Your task to perform on an android device: Search for sushi restaurants on Maps Image 0: 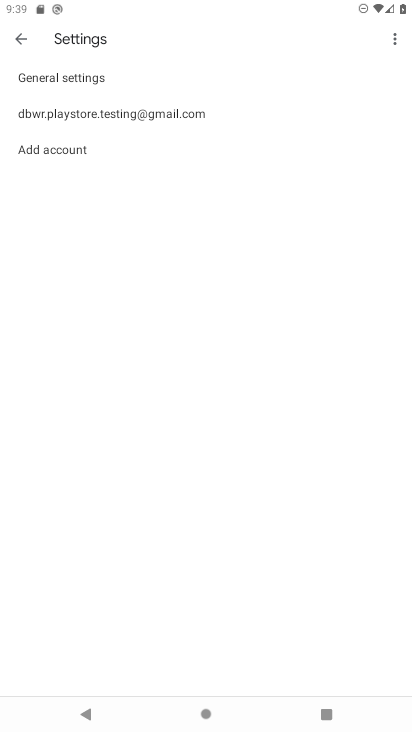
Step 0: press home button
Your task to perform on an android device: Search for sushi restaurants on Maps Image 1: 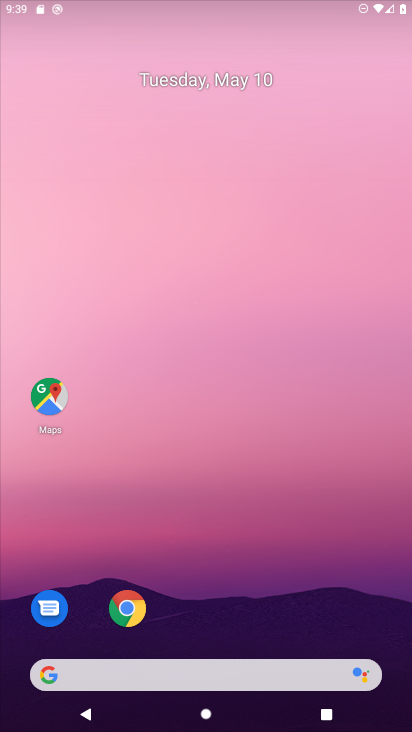
Step 1: drag from (385, 643) to (306, 112)
Your task to perform on an android device: Search for sushi restaurants on Maps Image 2: 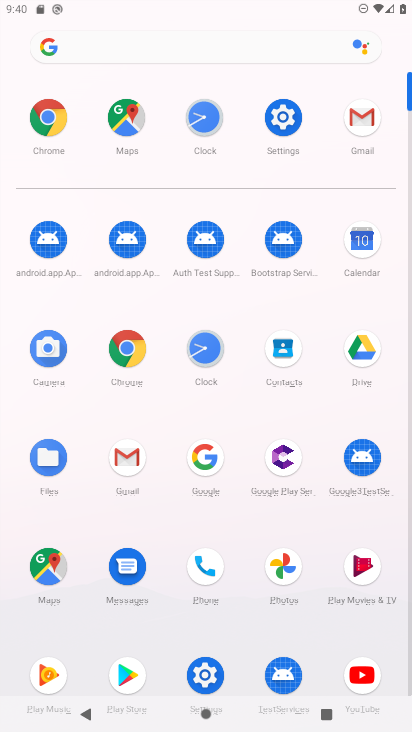
Step 2: click (36, 575)
Your task to perform on an android device: Search for sushi restaurants on Maps Image 3: 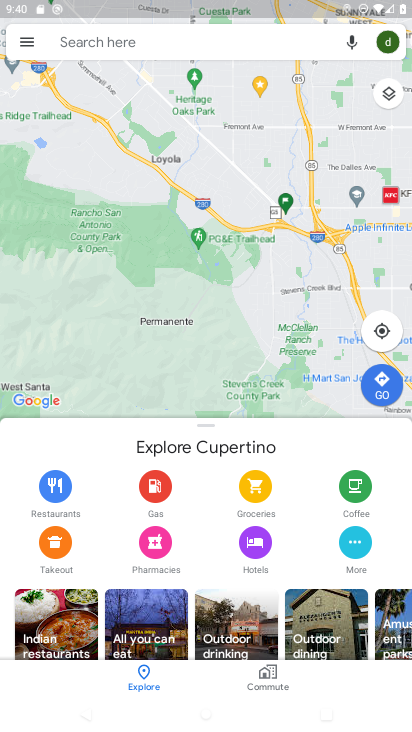
Step 3: click (169, 42)
Your task to perform on an android device: Search for sushi restaurants on Maps Image 4: 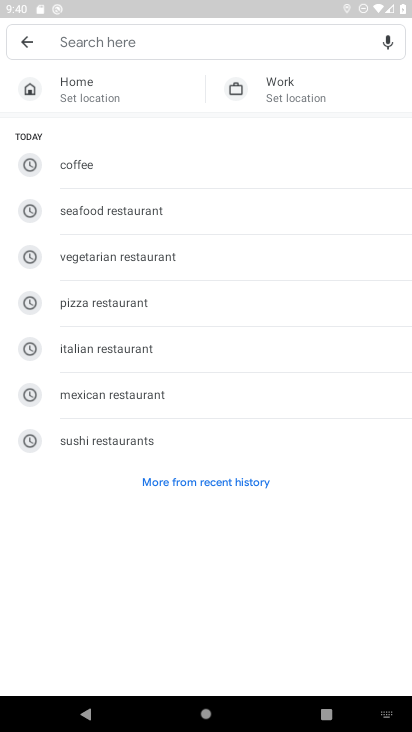
Step 4: click (120, 433)
Your task to perform on an android device: Search for sushi restaurants on Maps Image 5: 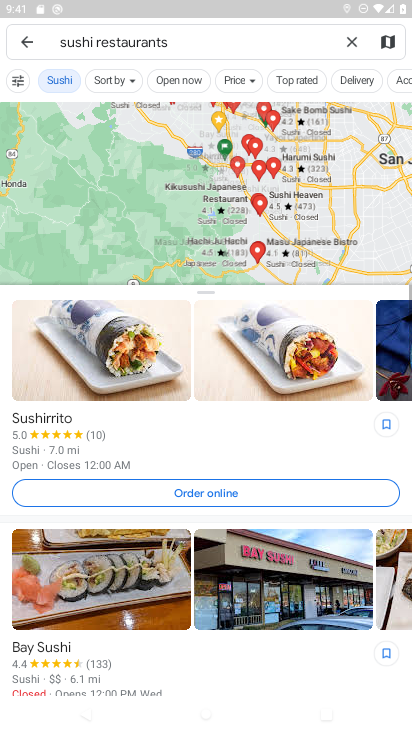
Step 5: task complete